Your task to perform on an android device: uninstall "Venmo" Image 0: 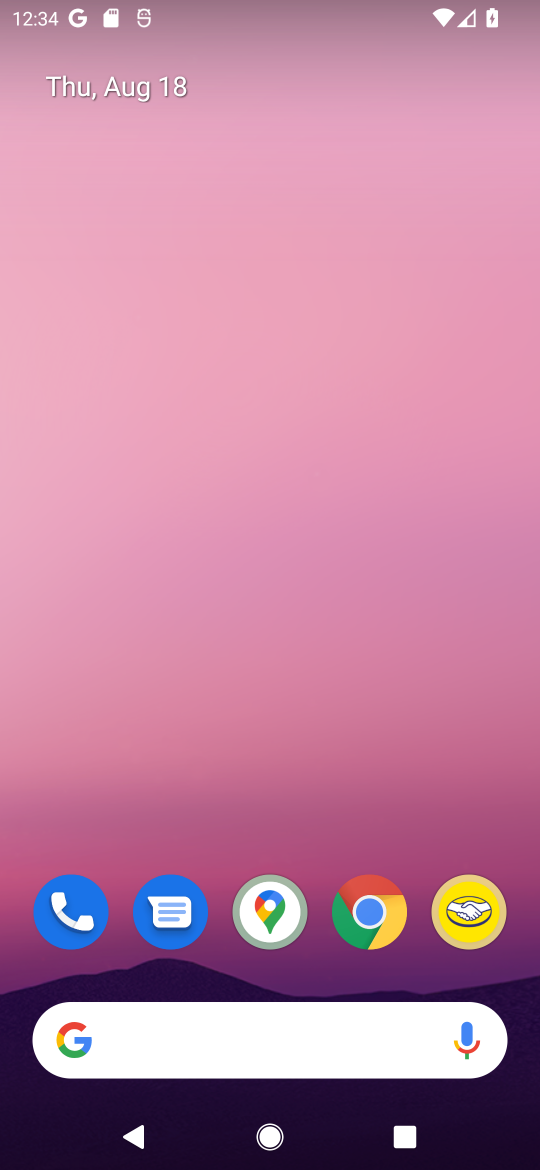
Step 0: drag from (239, 966) to (362, 38)
Your task to perform on an android device: uninstall "Venmo" Image 1: 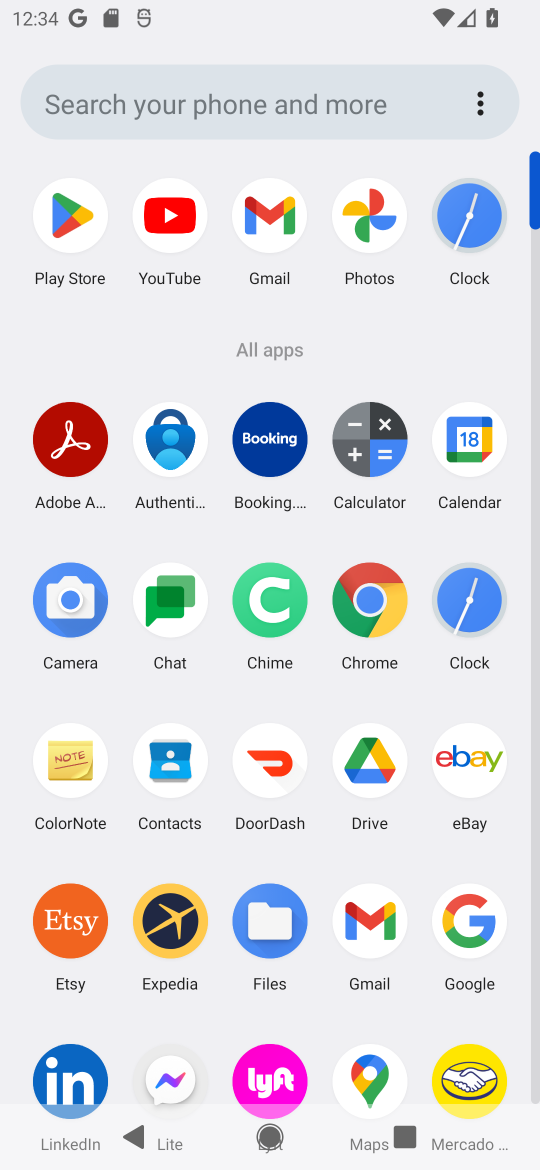
Step 1: click (50, 218)
Your task to perform on an android device: uninstall "Venmo" Image 2: 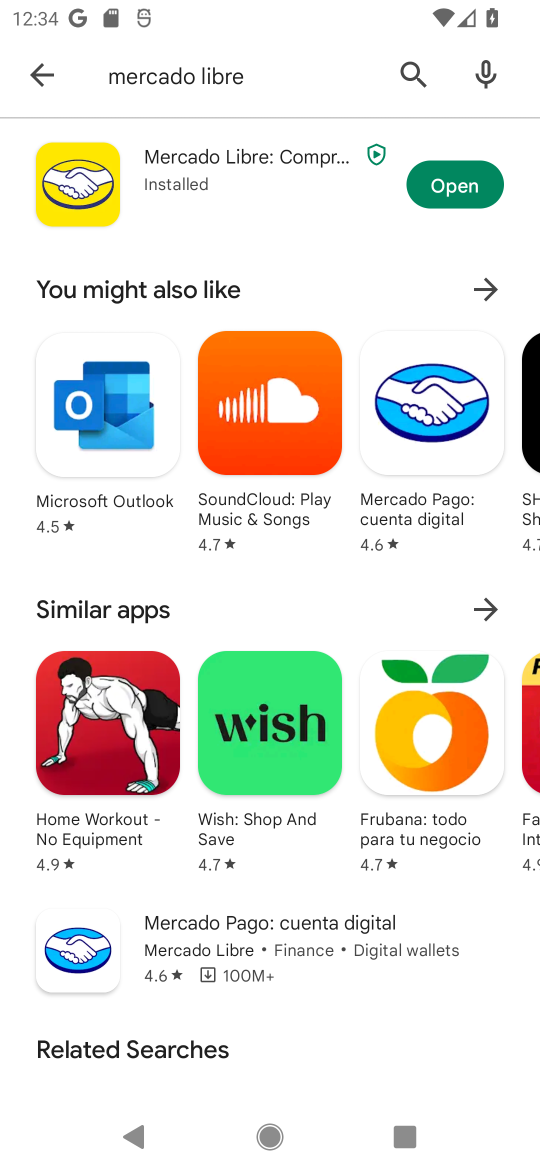
Step 2: click (422, 79)
Your task to perform on an android device: uninstall "Venmo" Image 3: 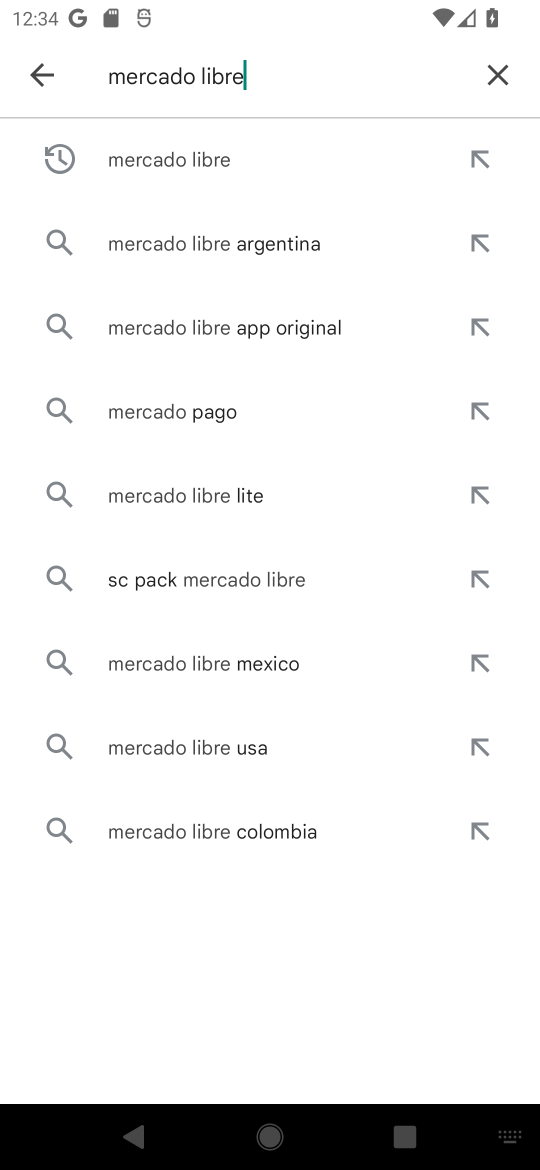
Step 3: click (503, 77)
Your task to perform on an android device: uninstall "Venmo" Image 4: 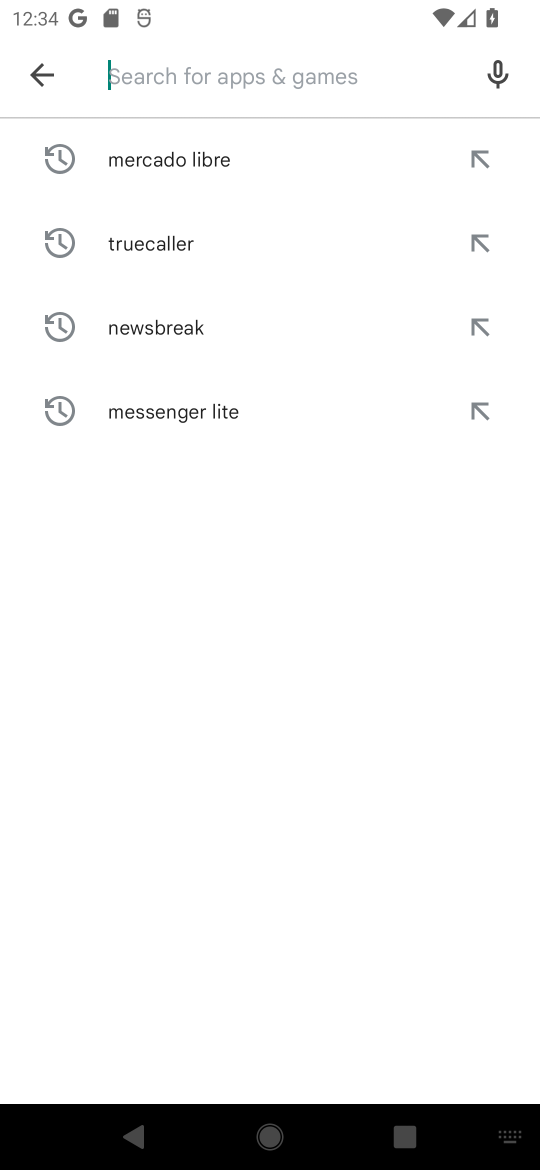
Step 4: click (173, 71)
Your task to perform on an android device: uninstall "Venmo" Image 5: 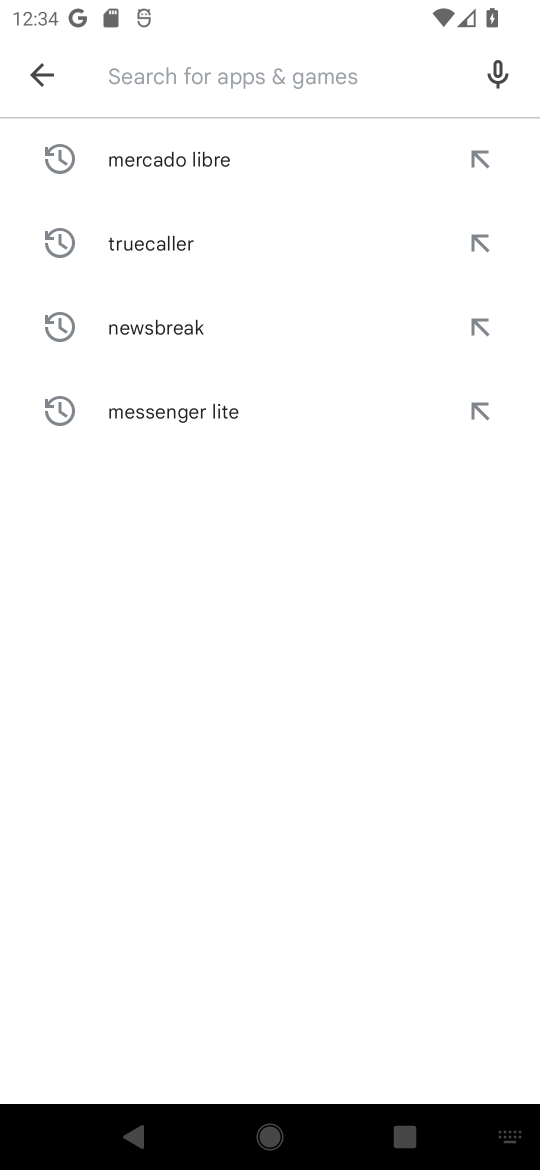
Step 5: type "venmo"
Your task to perform on an android device: uninstall "Venmo" Image 6: 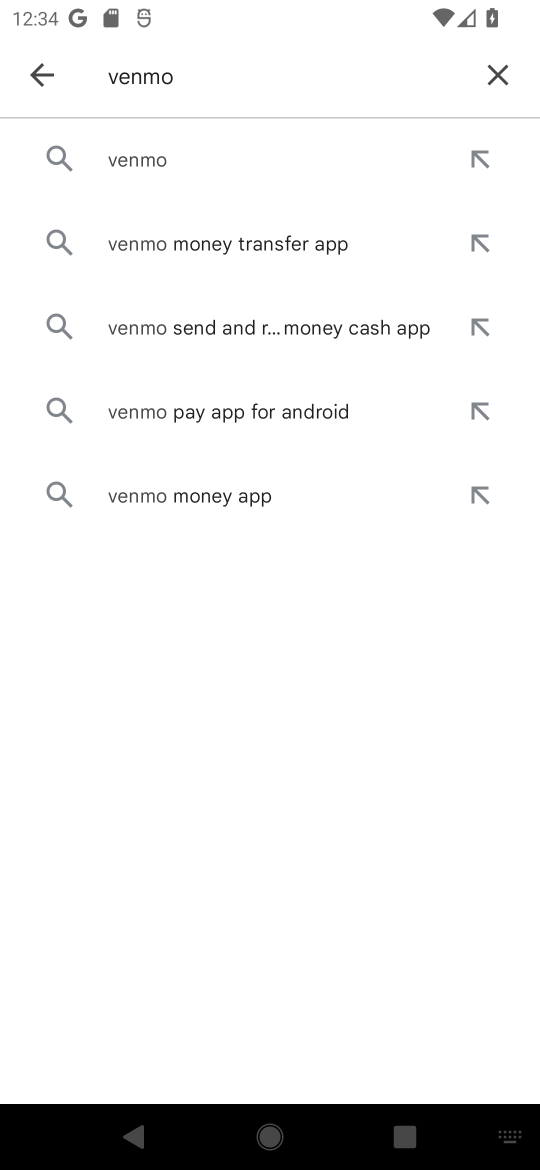
Step 6: click (167, 211)
Your task to perform on an android device: uninstall "Venmo" Image 7: 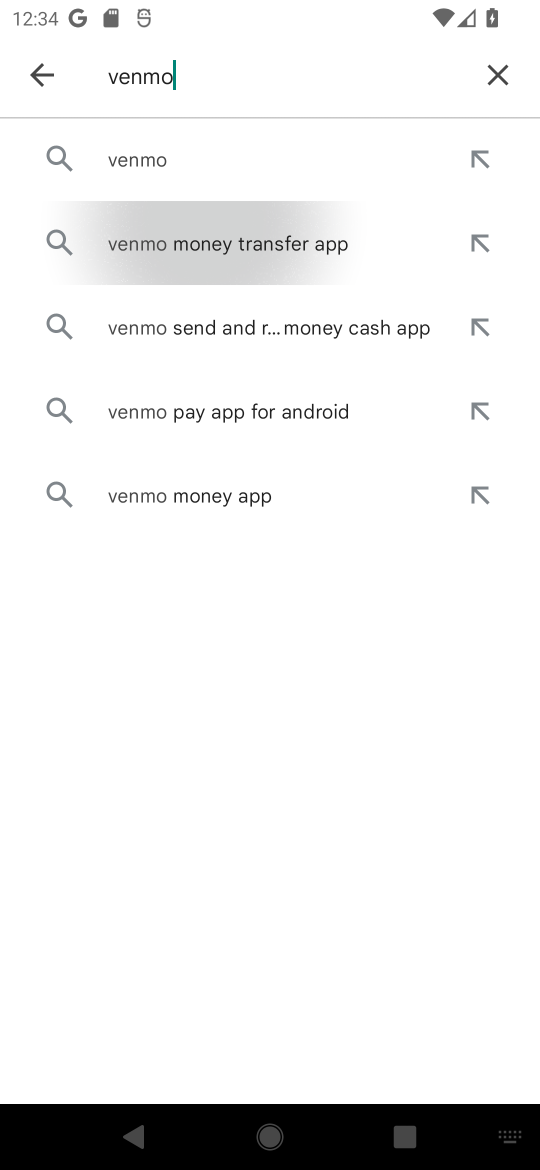
Step 7: click (169, 157)
Your task to perform on an android device: uninstall "Venmo" Image 8: 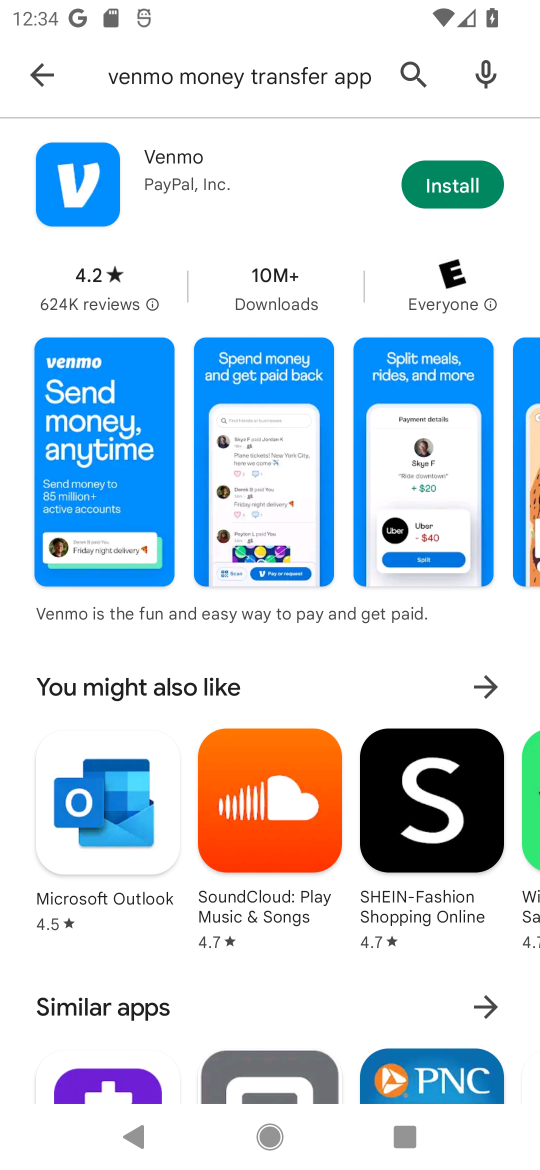
Step 8: task complete